Your task to perform on an android device: open device folders in google photos Image 0: 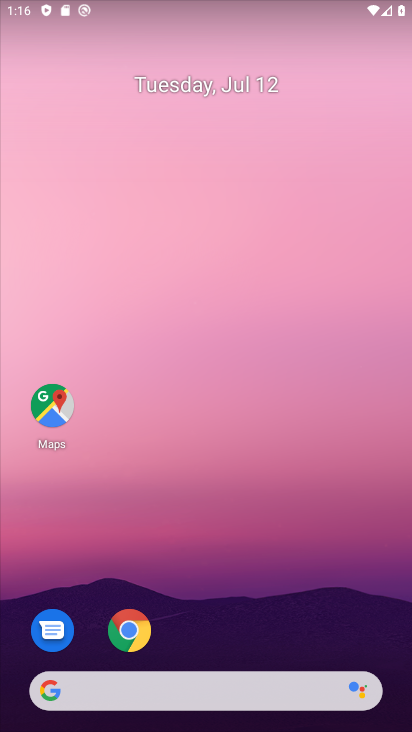
Step 0: drag from (203, 651) to (71, 104)
Your task to perform on an android device: open device folders in google photos Image 1: 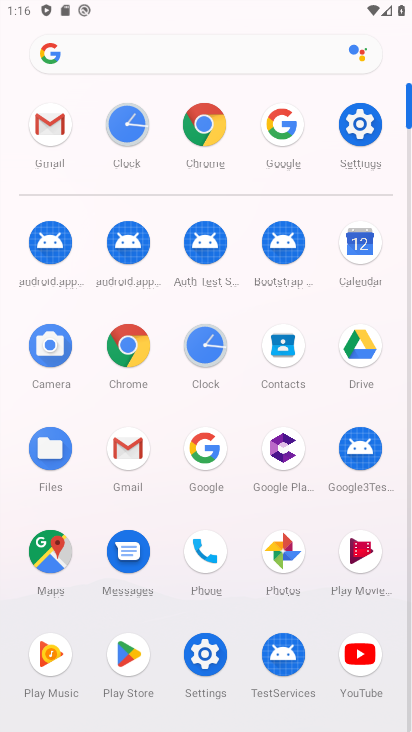
Step 1: click (292, 554)
Your task to perform on an android device: open device folders in google photos Image 2: 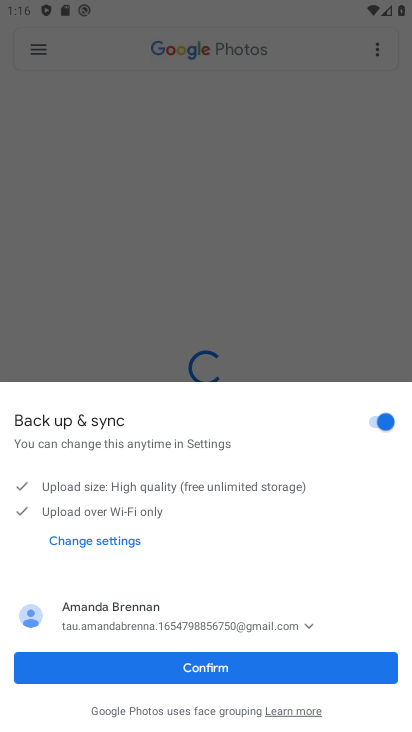
Step 2: click (242, 675)
Your task to perform on an android device: open device folders in google photos Image 3: 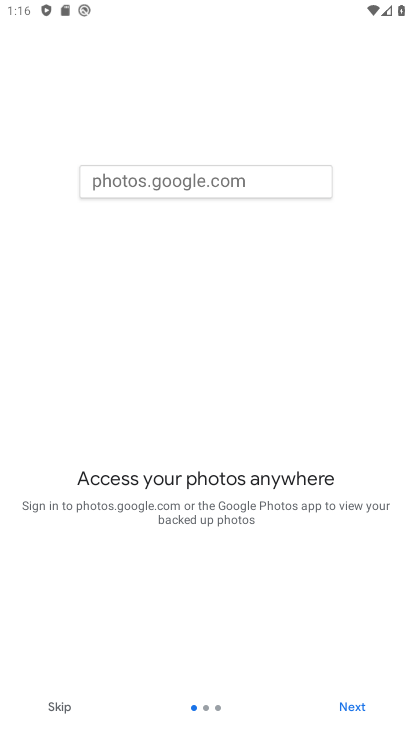
Step 3: click (65, 709)
Your task to perform on an android device: open device folders in google photos Image 4: 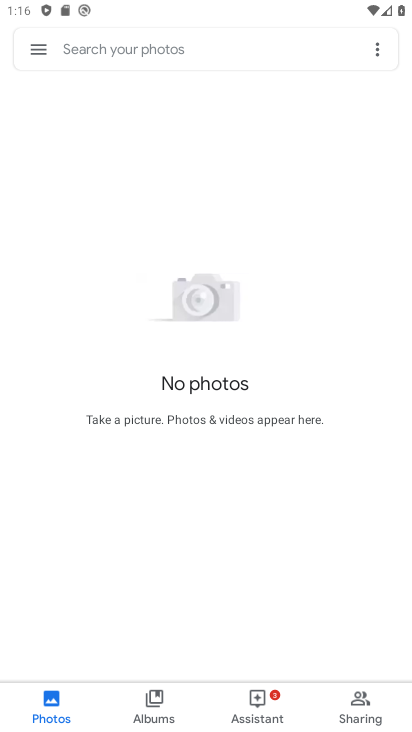
Step 4: click (34, 44)
Your task to perform on an android device: open device folders in google photos Image 5: 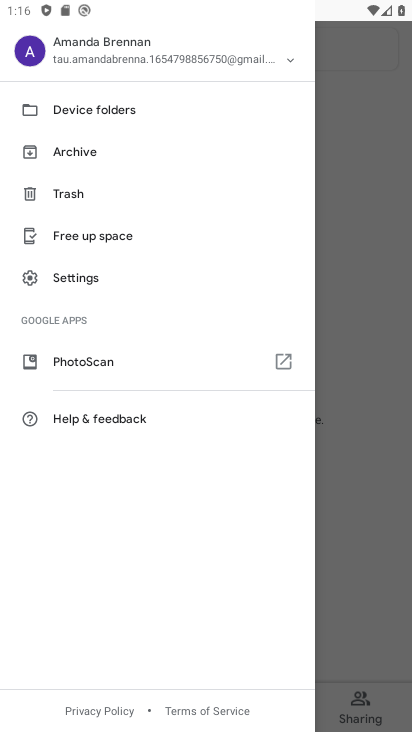
Step 5: click (95, 117)
Your task to perform on an android device: open device folders in google photos Image 6: 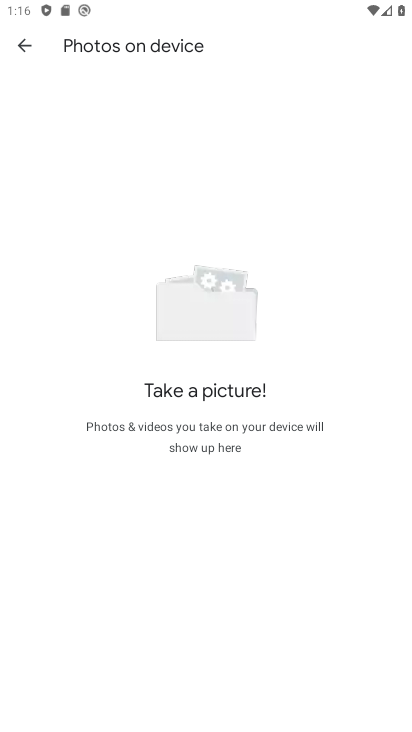
Step 6: task complete